Your task to perform on an android device: toggle notifications settings in the gmail app Image 0: 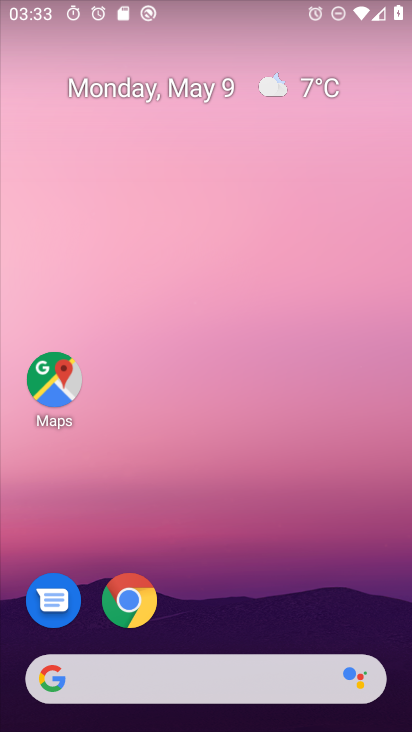
Step 0: drag from (237, 667) to (225, 98)
Your task to perform on an android device: toggle notifications settings in the gmail app Image 1: 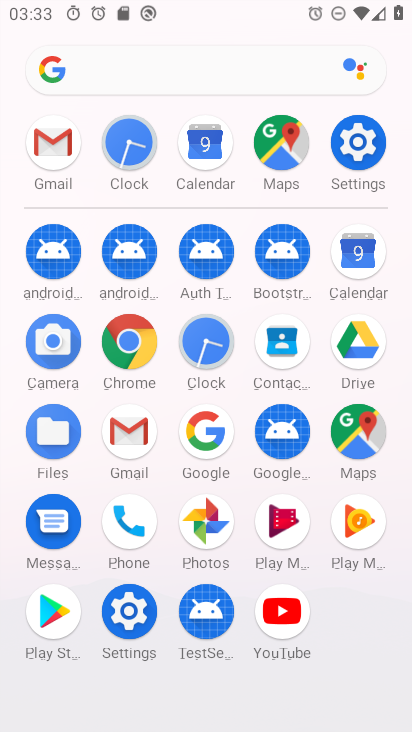
Step 1: click (58, 158)
Your task to perform on an android device: toggle notifications settings in the gmail app Image 2: 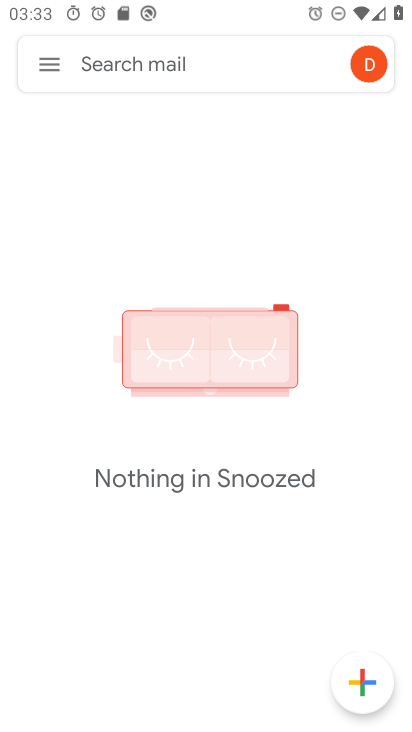
Step 2: click (49, 69)
Your task to perform on an android device: toggle notifications settings in the gmail app Image 3: 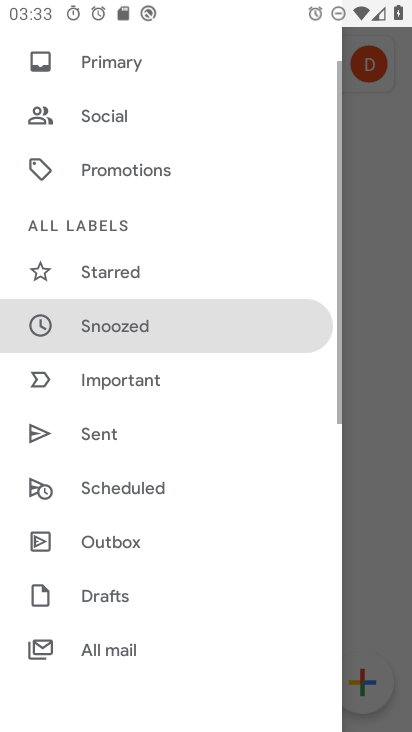
Step 3: drag from (144, 550) to (107, 183)
Your task to perform on an android device: toggle notifications settings in the gmail app Image 4: 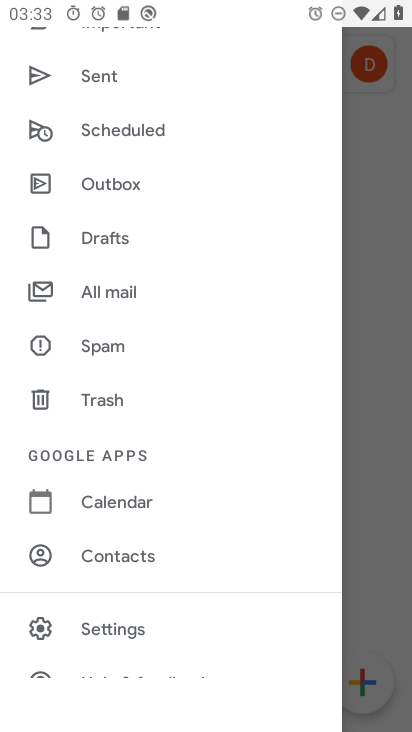
Step 4: click (95, 618)
Your task to perform on an android device: toggle notifications settings in the gmail app Image 5: 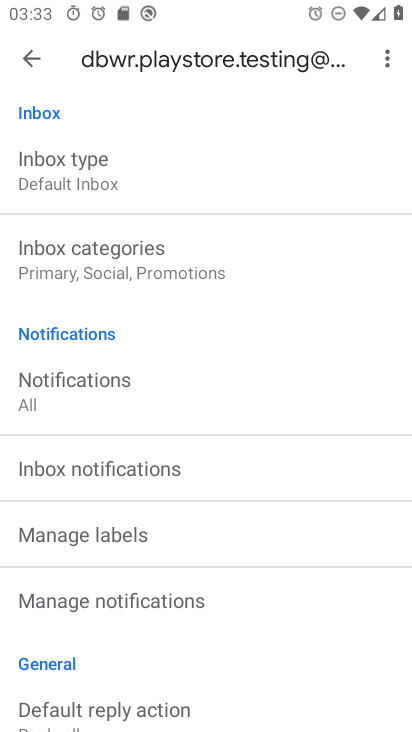
Step 5: click (168, 597)
Your task to perform on an android device: toggle notifications settings in the gmail app Image 6: 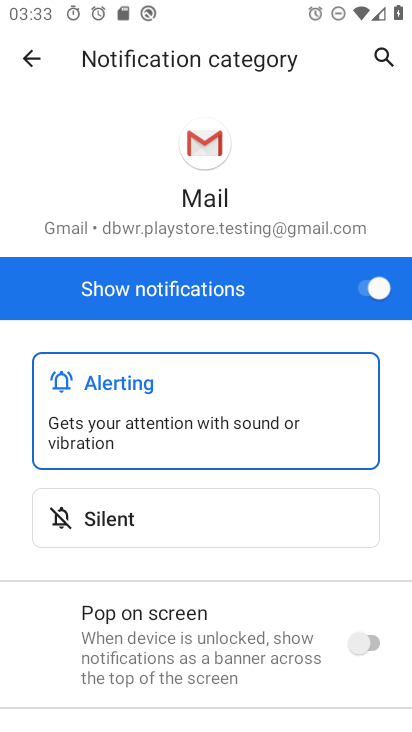
Step 6: click (364, 291)
Your task to perform on an android device: toggle notifications settings in the gmail app Image 7: 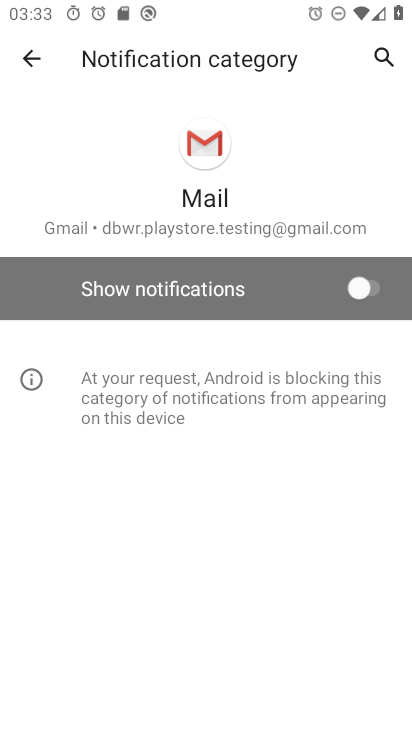
Step 7: task complete